Your task to perform on an android device: turn off improve location accuracy Image 0: 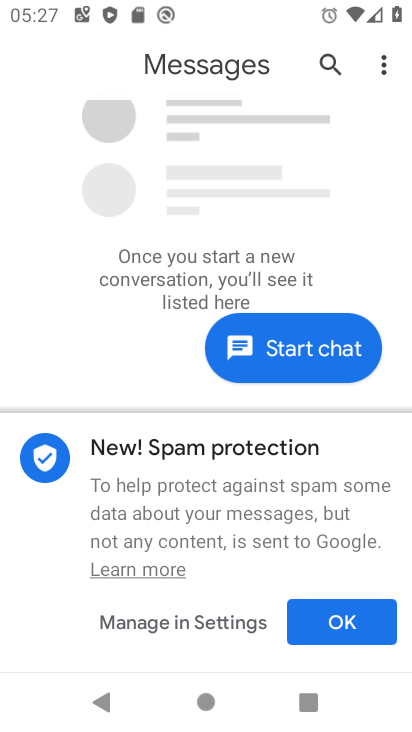
Step 0: press home button
Your task to perform on an android device: turn off improve location accuracy Image 1: 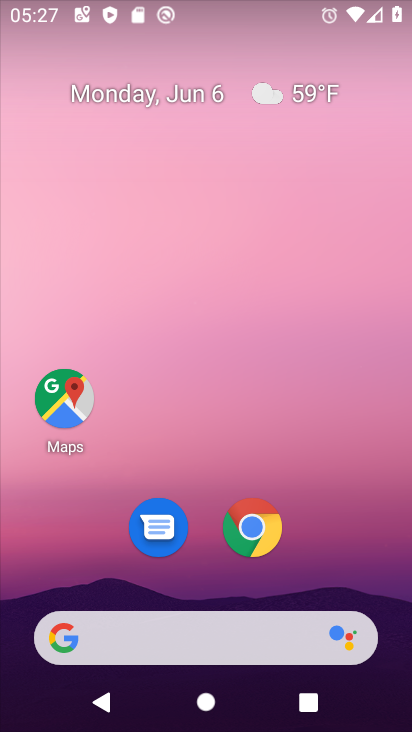
Step 1: drag from (393, 678) to (384, 224)
Your task to perform on an android device: turn off improve location accuracy Image 2: 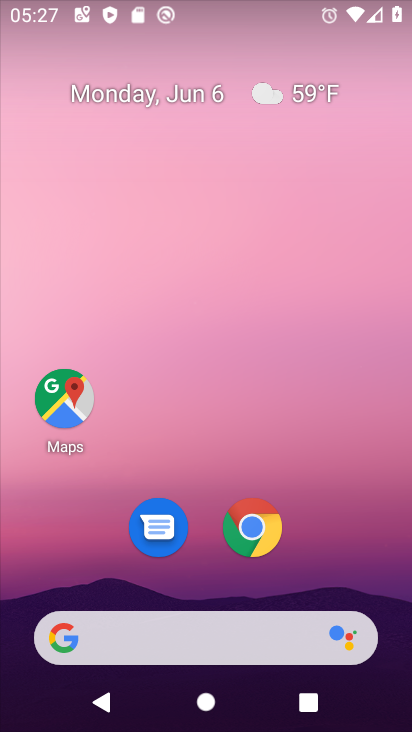
Step 2: drag from (401, 693) to (411, 22)
Your task to perform on an android device: turn off improve location accuracy Image 3: 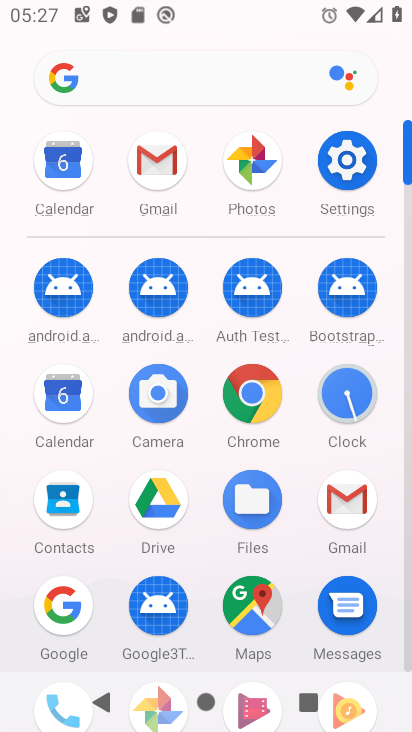
Step 3: click (338, 148)
Your task to perform on an android device: turn off improve location accuracy Image 4: 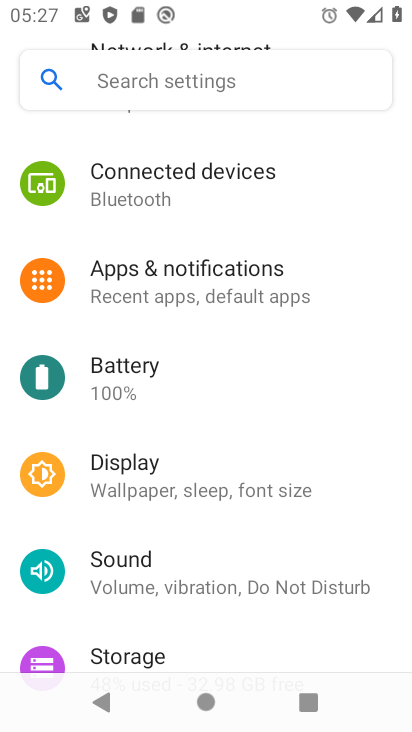
Step 4: drag from (221, 639) to (255, 176)
Your task to perform on an android device: turn off improve location accuracy Image 5: 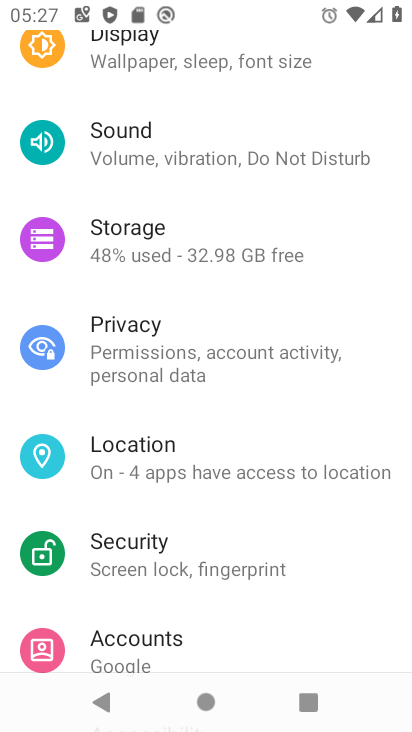
Step 5: click (141, 447)
Your task to perform on an android device: turn off improve location accuracy Image 6: 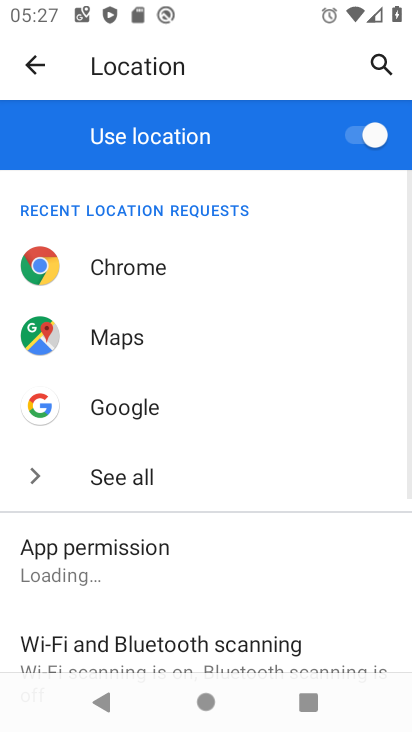
Step 6: drag from (231, 549) to (248, 193)
Your task to perform on an android device: turn off improve location accuracy Image 7: 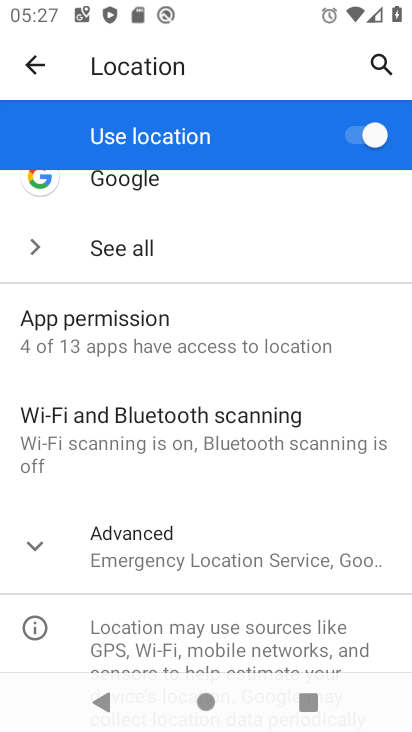
Step 7: drag from (209, 576) to (227, 252)
Your task to perform on an android device: turn off improve location accuracy Image 8: 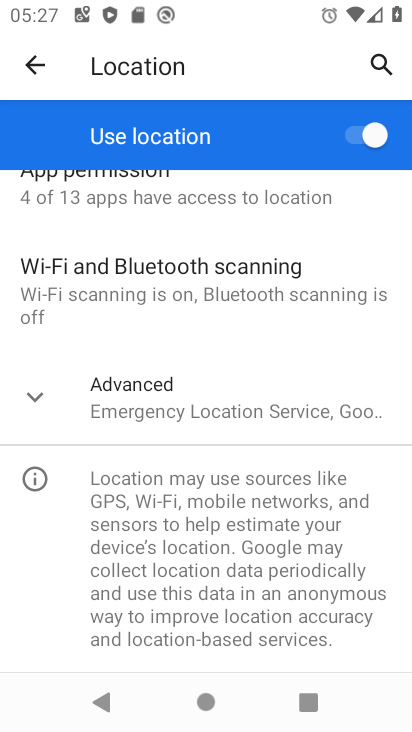
Step 8: click (26, 398)
Your task to perform on an android device: turn off improve location accuracy Image 9: 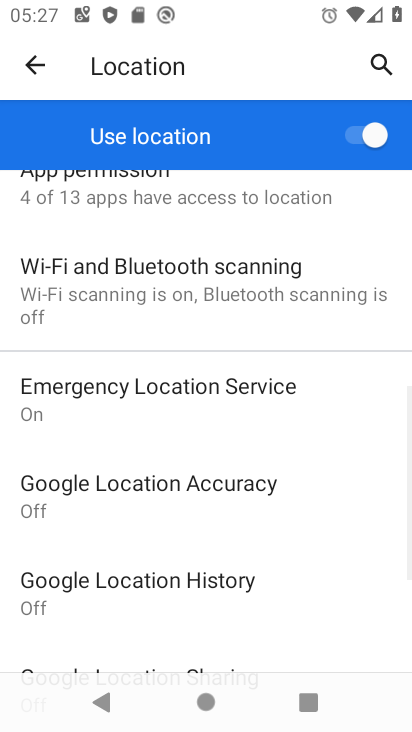
Step 9: task complete